Your task to perform on an android device: Show me popular games on the Play Store Image 0: 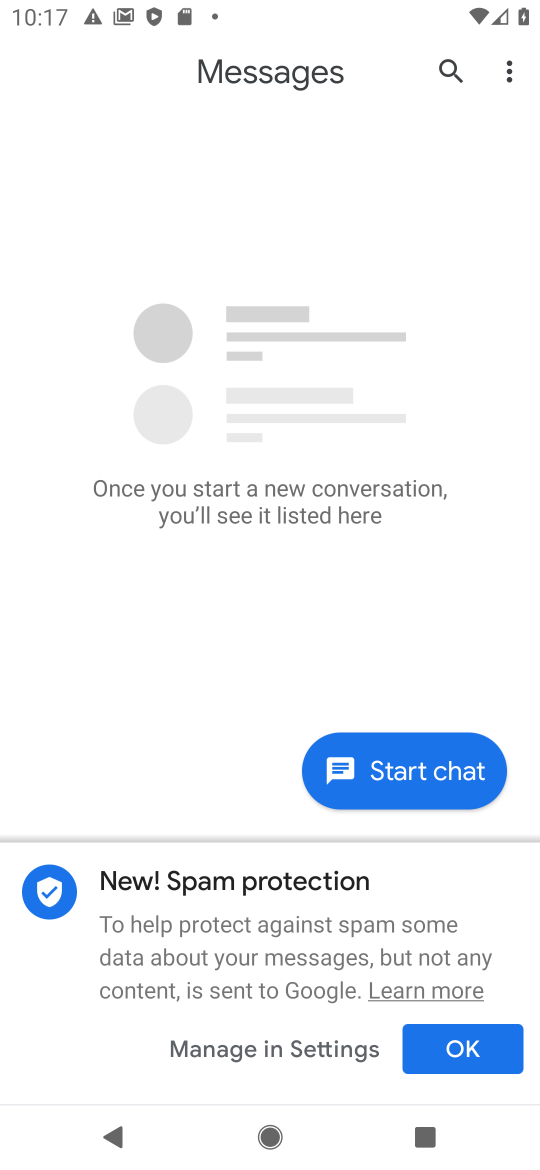
Step 0: press home button
Your task to perform on an android device: Show me popular games on the Play Store Image 1: 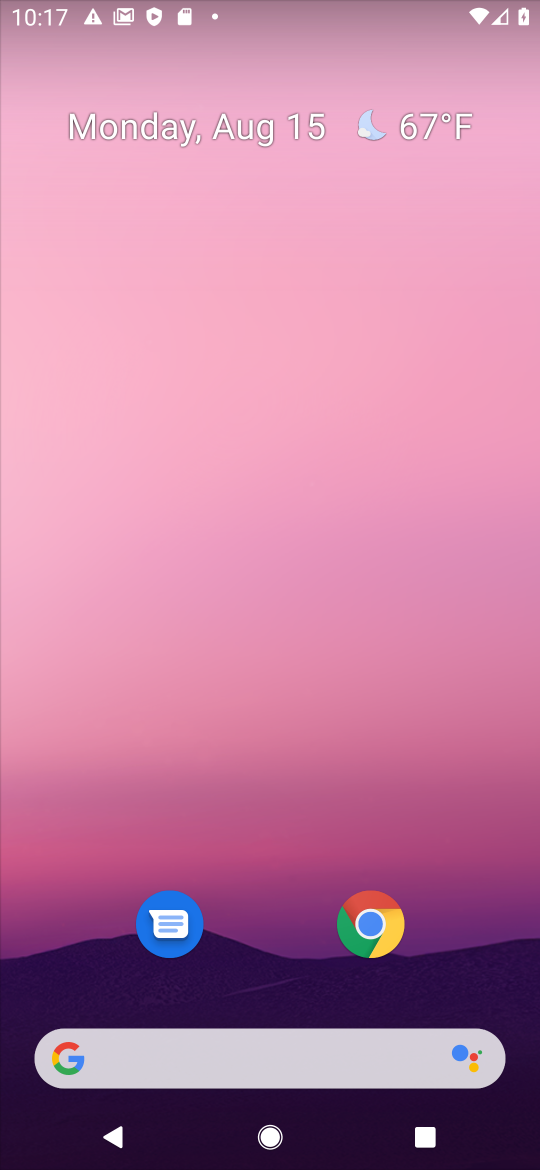
Step 1: drag from (467, 670) to (467, 247)
Your task to perform on an android device: Show me popular games on the Play Store Image 2: 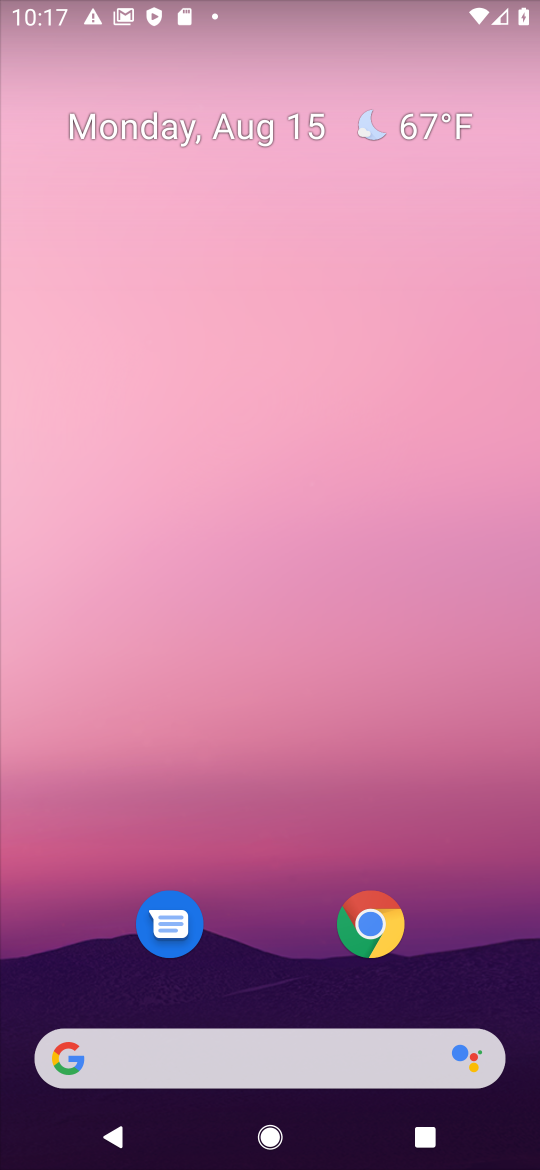
Step 2: drag from (487, 996) to (479, 83)
Your task to perform on an android device: Show me popular games on the Play Store Image 3: 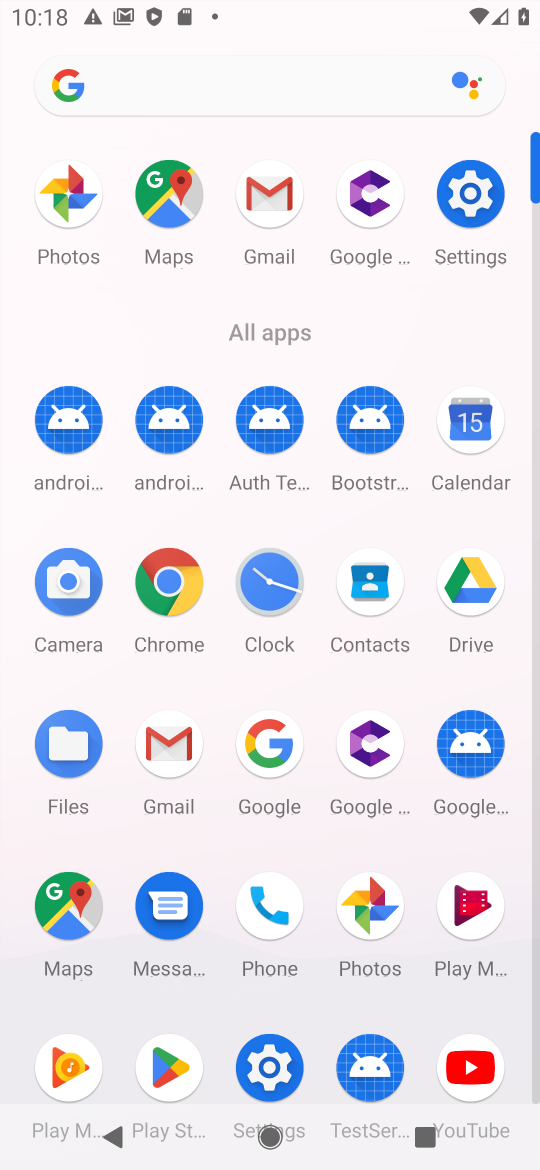
Step 3: click (173, 1068)
Your task to perform on an android device: Show me popular games on the Play Store Image 4: 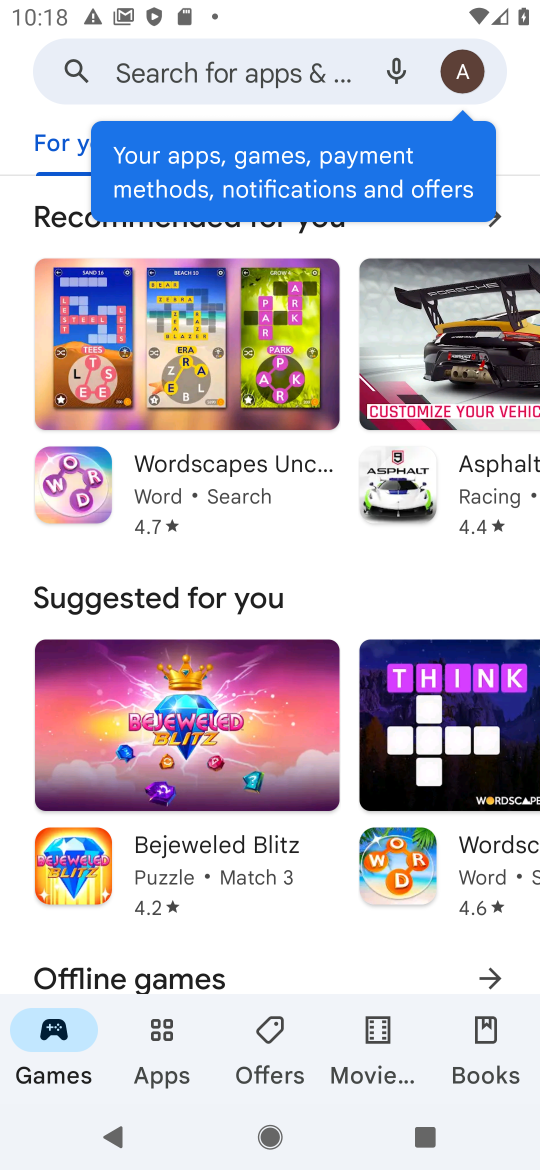
Step 4: drag from (309, 763) to (350, 285)
Your task to perform on an android device: Show me popular games on the Play Store Image 5: 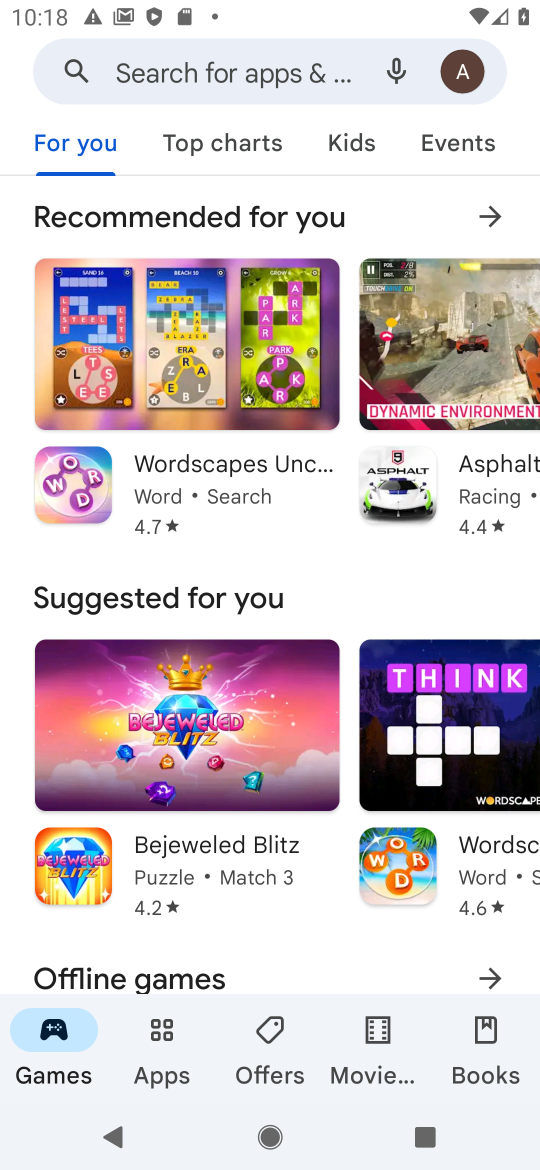
Step 5: drag from (338, 973) to (322, 272)
Your task to perform on an android device: Show me popular games on the Play Store Image 6: 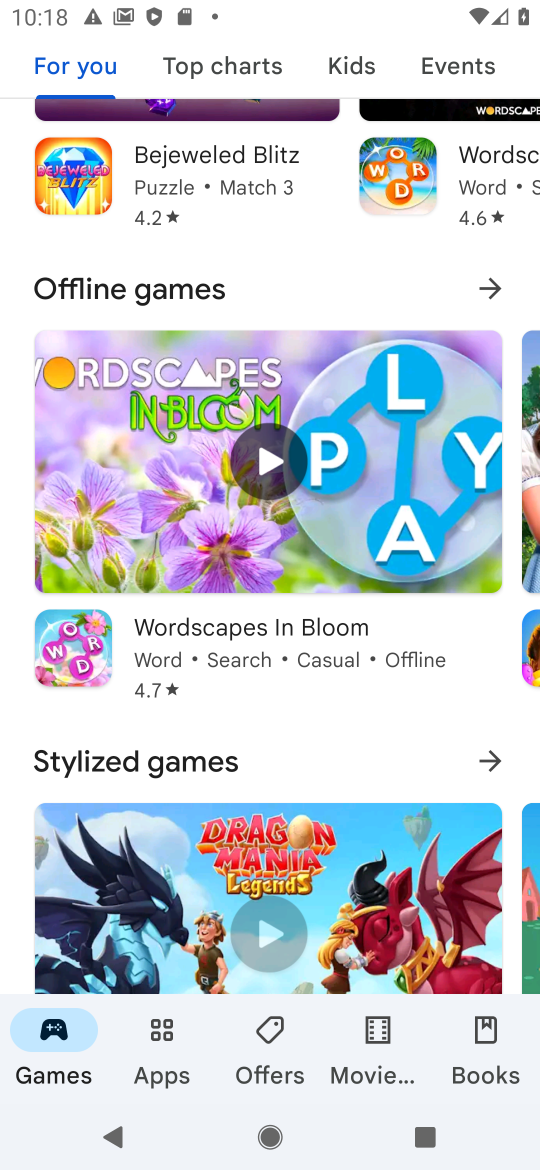
Step 6: drag from (357, 792) to (369, 128)
Your task to perform on an android device: Show me popular games on the Play Store Image 7: 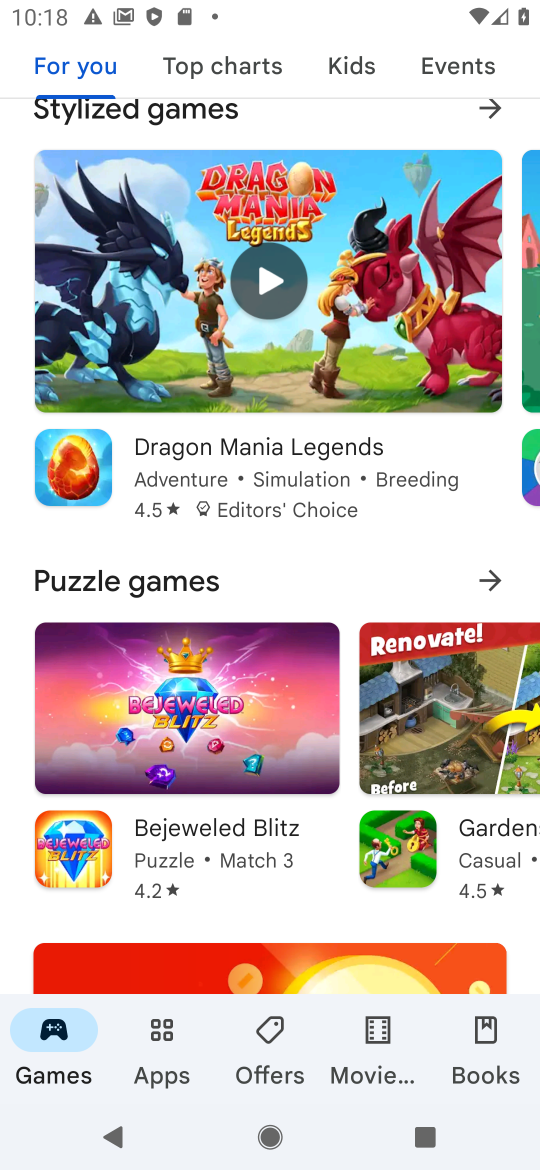
Step 7: drag from (323, 917) to (292, 85)
Your task to perform on an android device: Show me popular games on the Play Store Image 8: 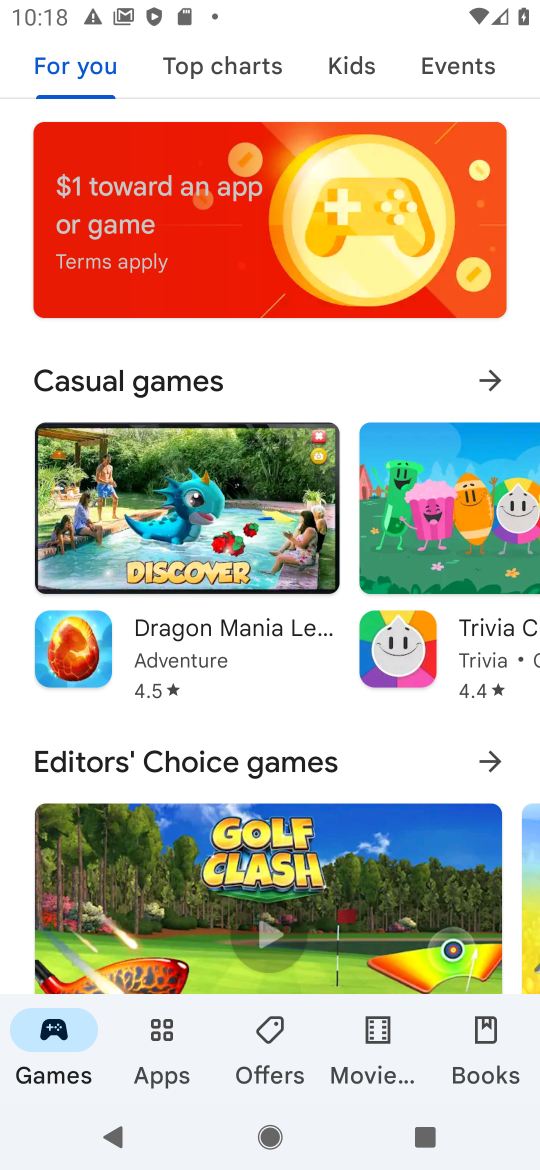
Step 8: drag from (332, 711) to (314, 158)
Your task to perform on an android device: Show me popular games on the Play Store Image 9: 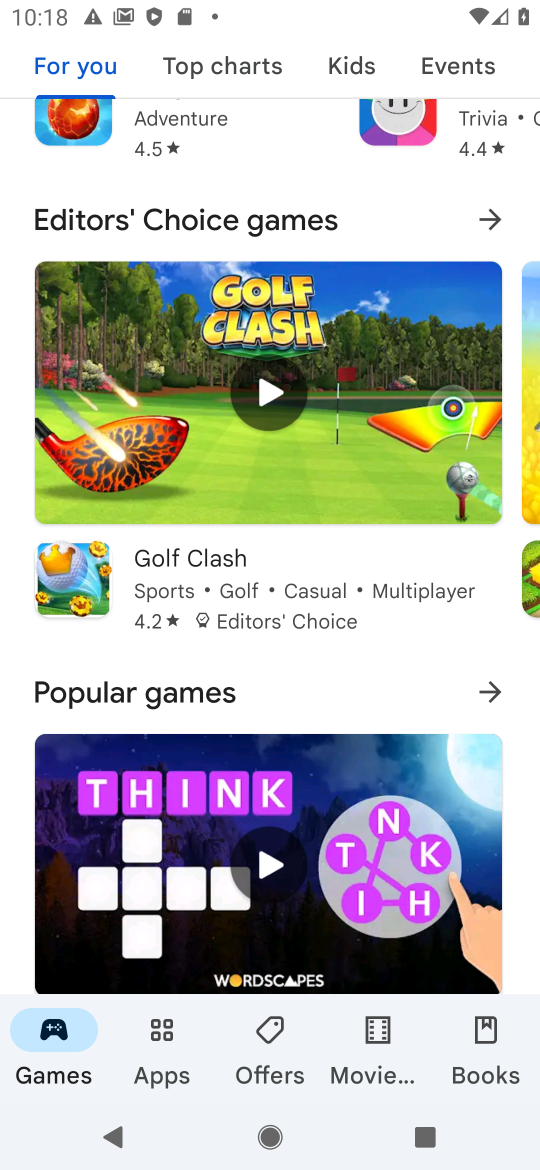
Step 9: drag from (313, 481) to (321, 112)
Your task to perform on an android device: Show me popular games on the Play Store Image 10: 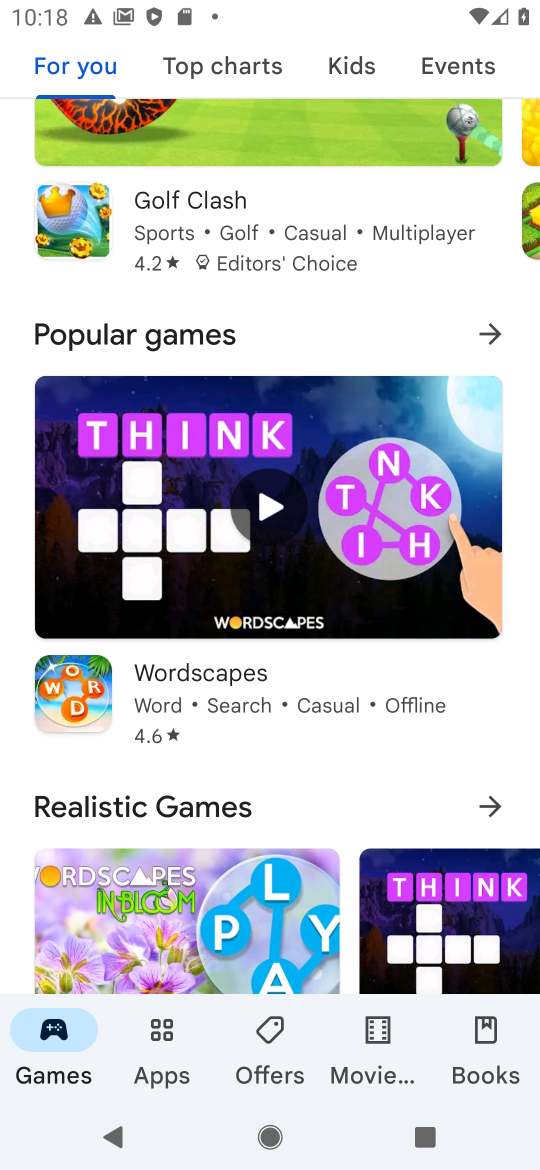
Step 10: click (484, 330)
Your task to perform on an android device: Show me popular games on the Play Store Image 11: 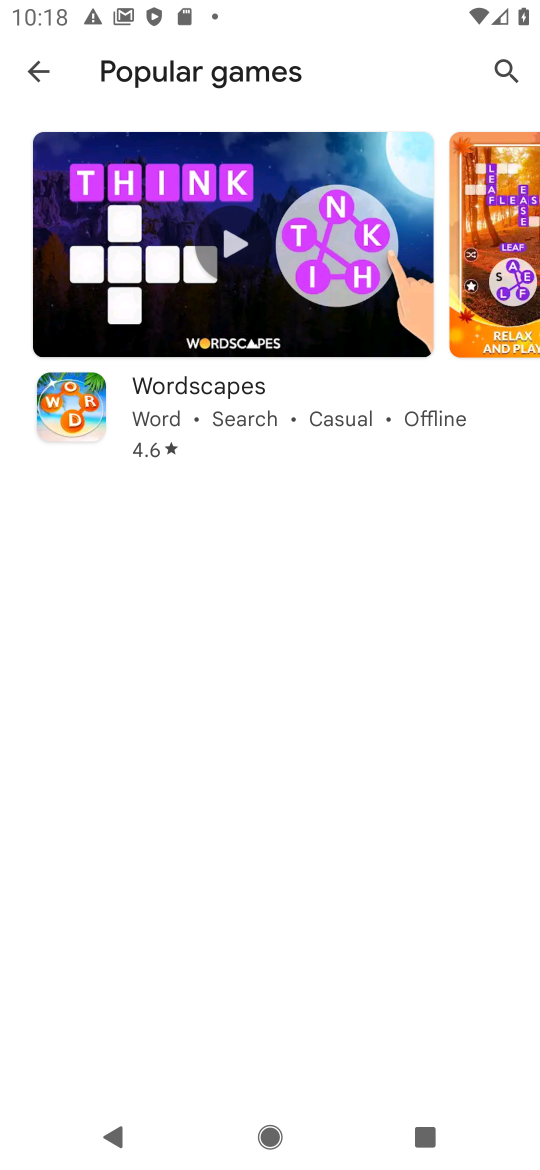
Step 11: task complete